Your task to perform on an android device: choose inbox layout in the gmail app Image 0: 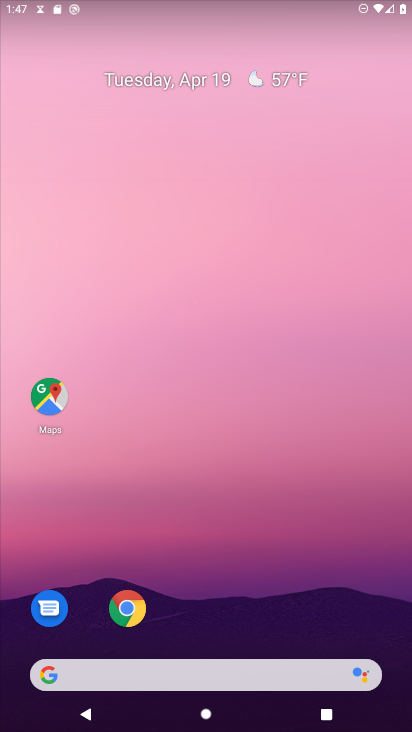
Step 0: drag from (165, 515) to (155, 194)
Your task to perform on an android device: choose inbox layout in the gmail app Image 1: 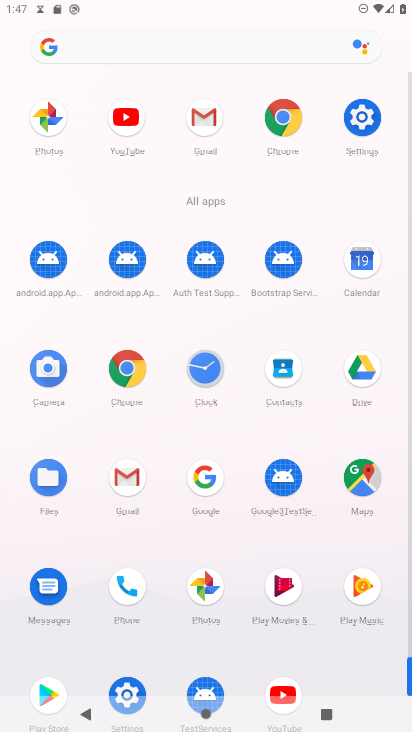
Step 1: click (208, 117)
Your task to perform on an android device: choose inbox layout in the gmail app Image 2: 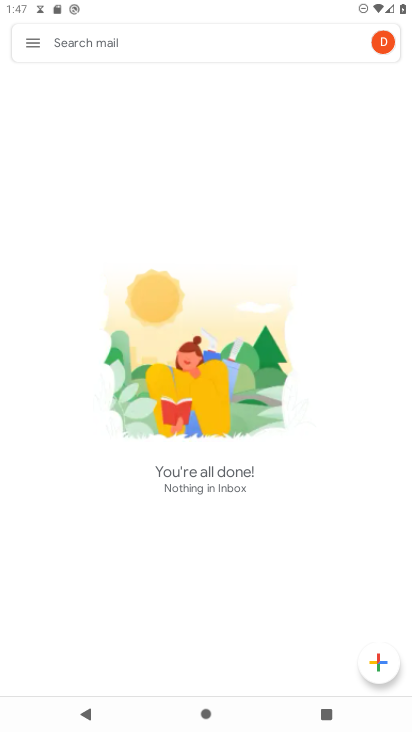
Step 2: click (38, 46)
Your task to perform on an android device: choose inbox layout in the gmail app Image 3: 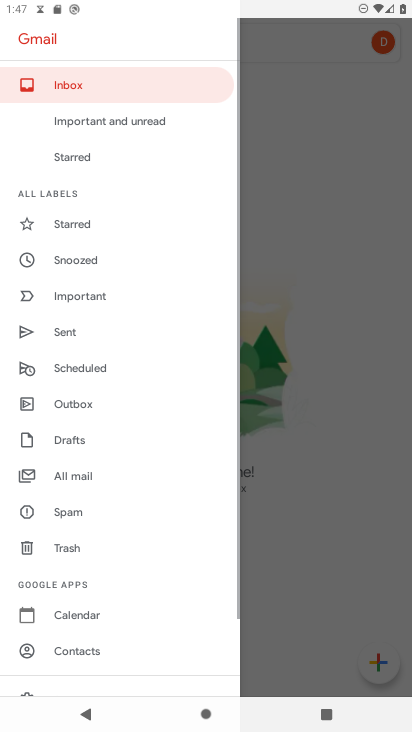
Step 3: click (84, 85)
Your task to perform on an android device: choose inbox layout in the gmail app Image 4: 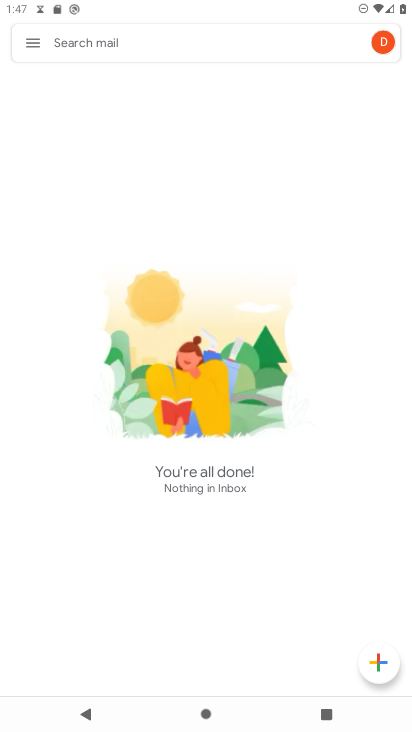
Step 4: task complete